Your task to perform on an android device: check data usage Image 0: 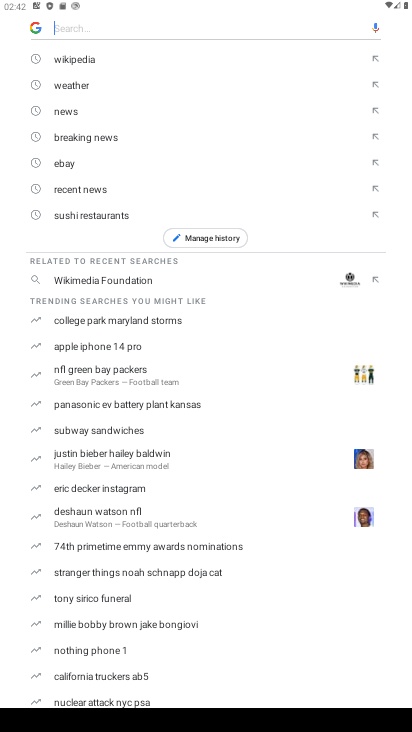
Step 0: press back button
Your task to perform on an android device: check data usage Image 1: 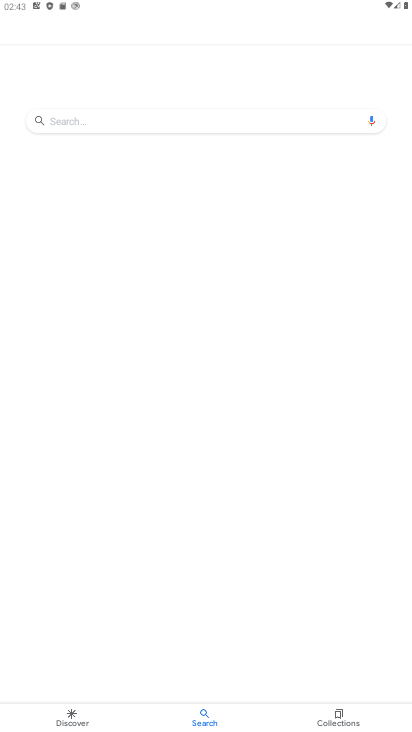
Step 1: press back button
Your task to perform on an android device: check data usage Image 2: 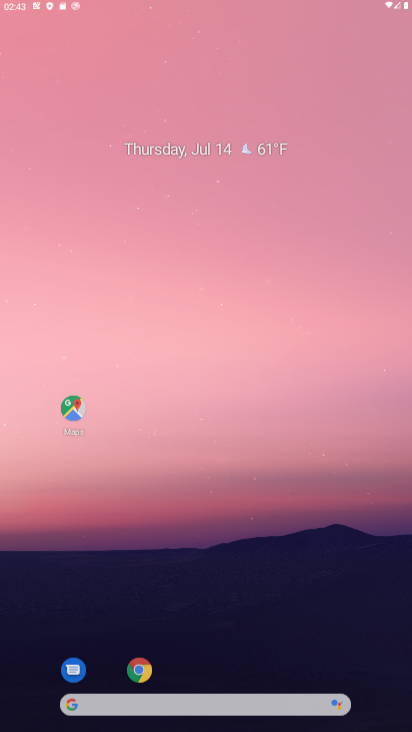
Step 2: press back button
Your task to perform on an android device: check data usage Image 3: 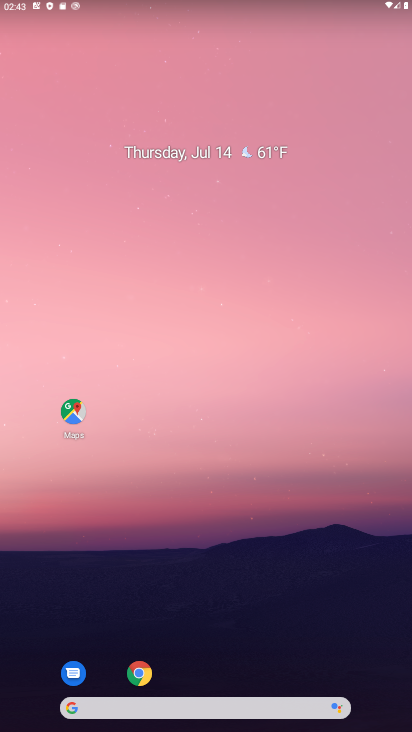
Step 3: drag from (260, 621) to (261, 292)
Your task to perform on an android device: check data usage Image 4: 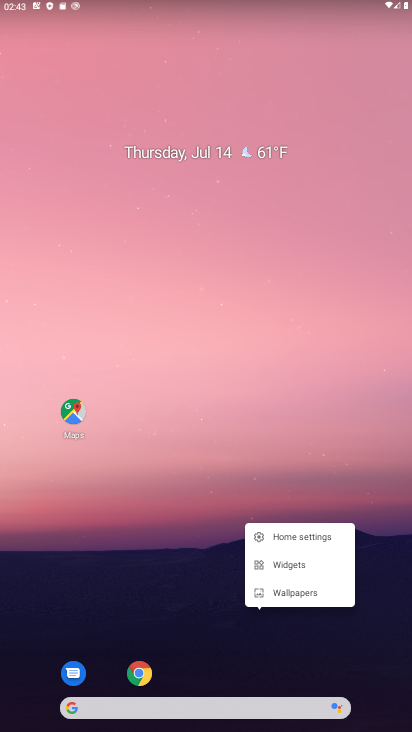
Step 4: click (261, 292)
Your task to perform on an android device: check data usage Image 5: 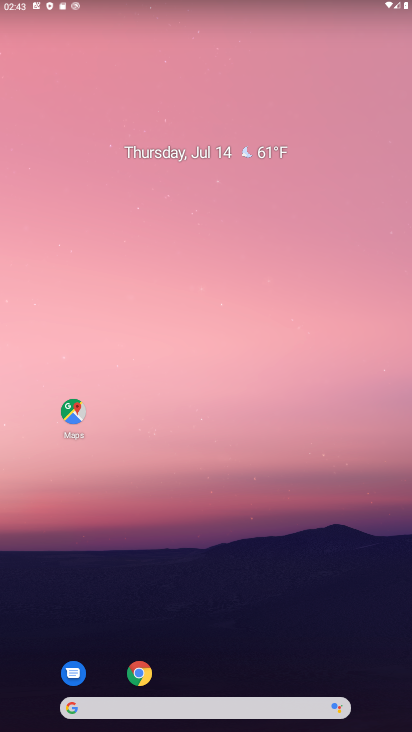
Step 5: drag from (297, 593) to (225, 174)
Your task to perform on an android device: check data usage Image 6: 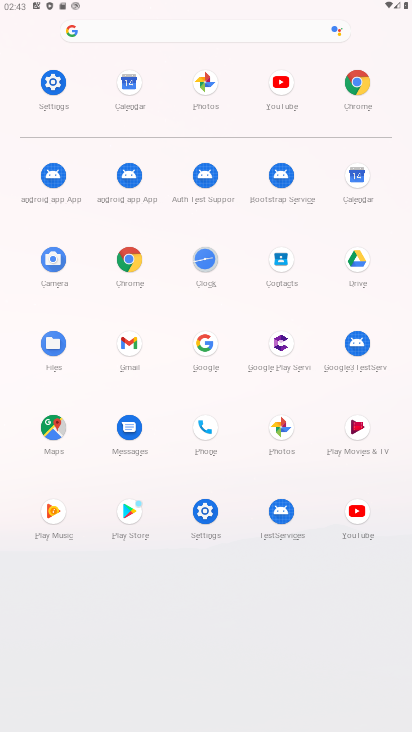
Step 6: click (55, 108)
Your task to perform on an android device: check data usage Image 7: 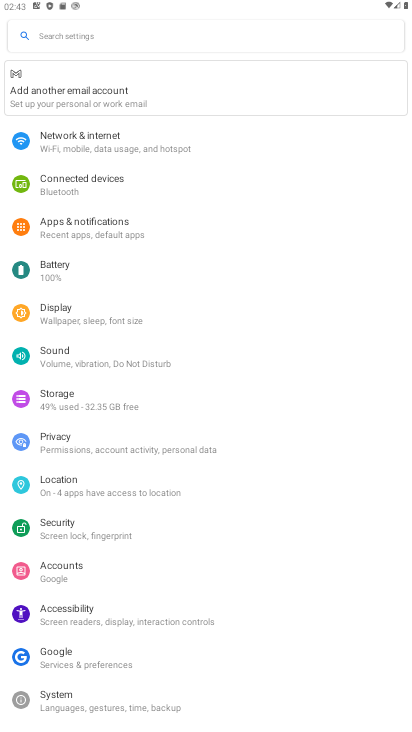
Step 7: click (96, 146)
Your task to perform on an android device: check data usage Image 8: 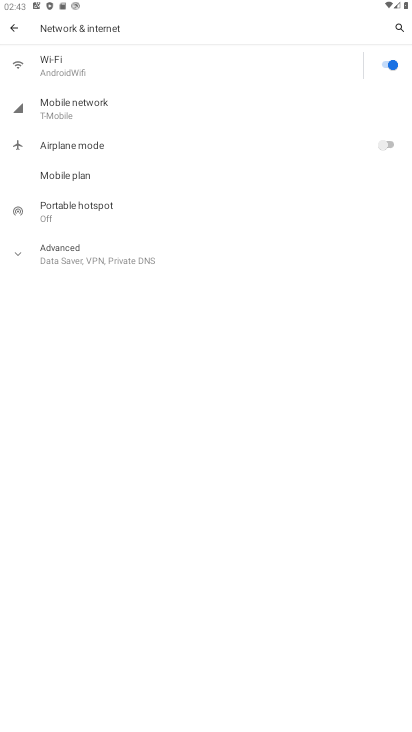
Step 8: click (99, 117)
Your task to perform on an android device: check data usage Image 9: 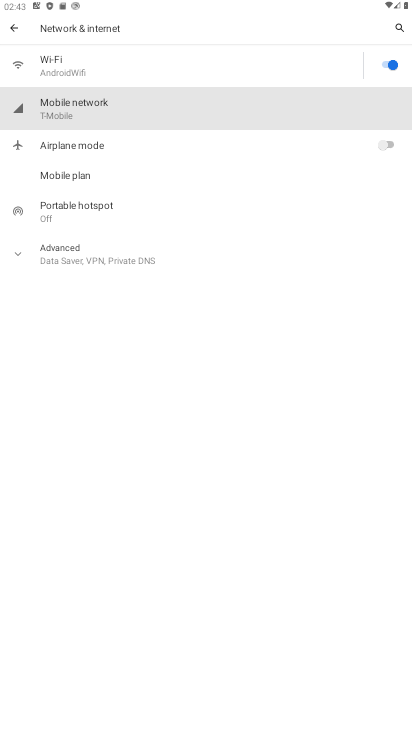
Step 9: task complete